Your task to perform on an android device: uninstall "Lyft - Rideshare, Bikes, Scooters & Transit" Image 0: 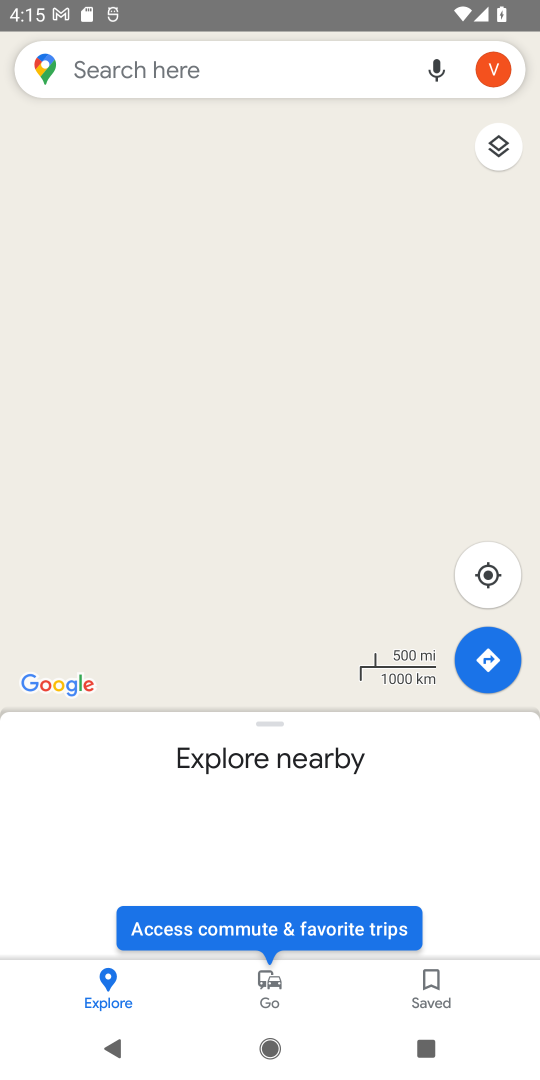
Step 0: press home button
Your task to perform on an android device: uninstall "Lyft - Rideshare, Bikes, Scooters & Transit" Image 1: 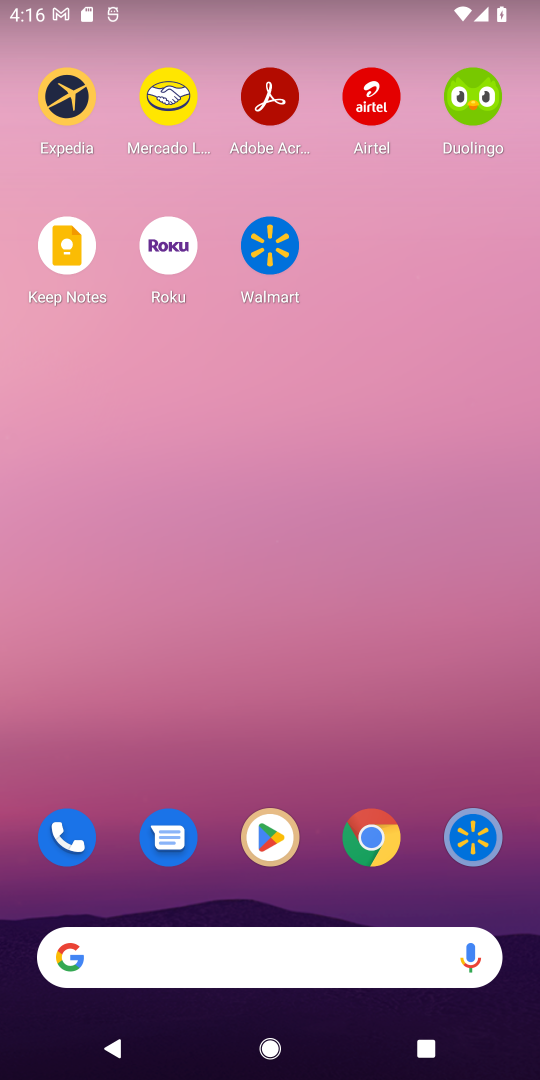
Step 1: press home button
Your task to perform on an android device: uninstall "Lyft - Rideshare, Bikes, Scooters & Transit" Image 2: 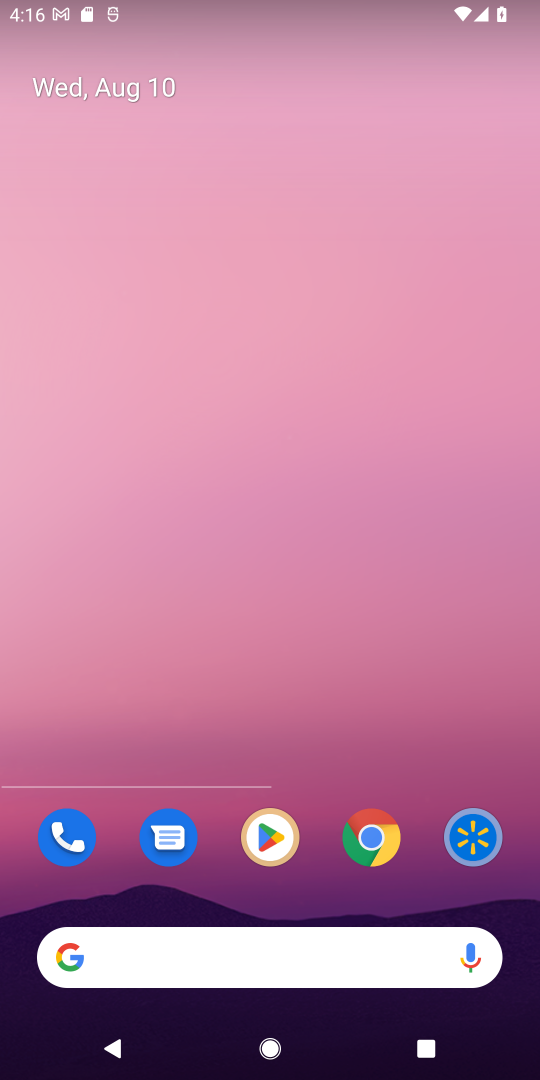
Step 2: click (270, 833)
Your task to perform on an android device: uninstall "Lyft - Rideshare, Bikes, Scooters & Transit" Image 3: 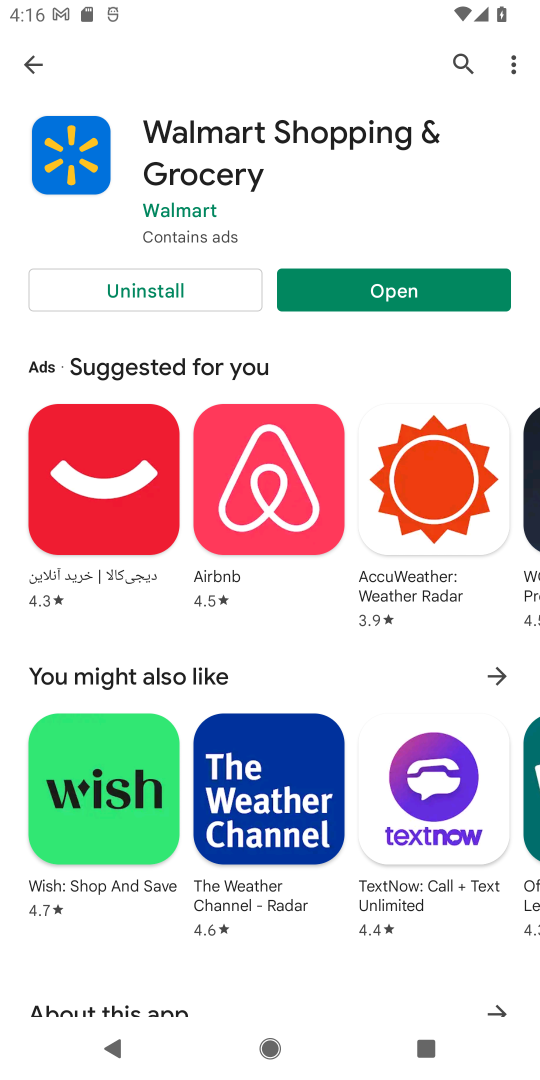
Step 3: click (454, 53)
Your task to perform on an android device: uninstall "Lyft - Rideshare, Bikes, Scooters & Transit" Image 4: 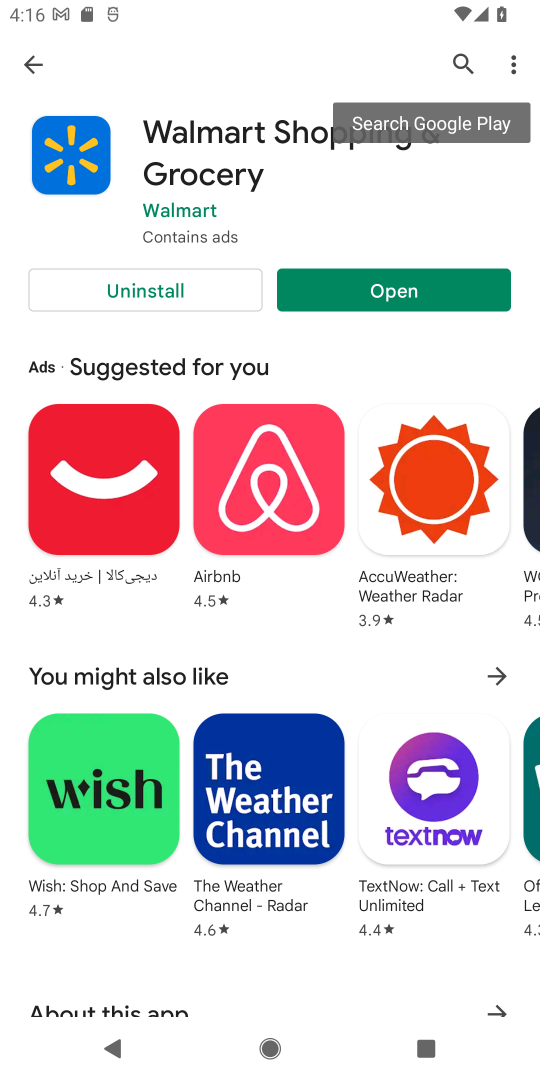
Step 4: click (460, 59)
Your task to perform on an android device: uninstall "Lyft - Rideshare, Bikes, Scooters & Transit" Image 5: 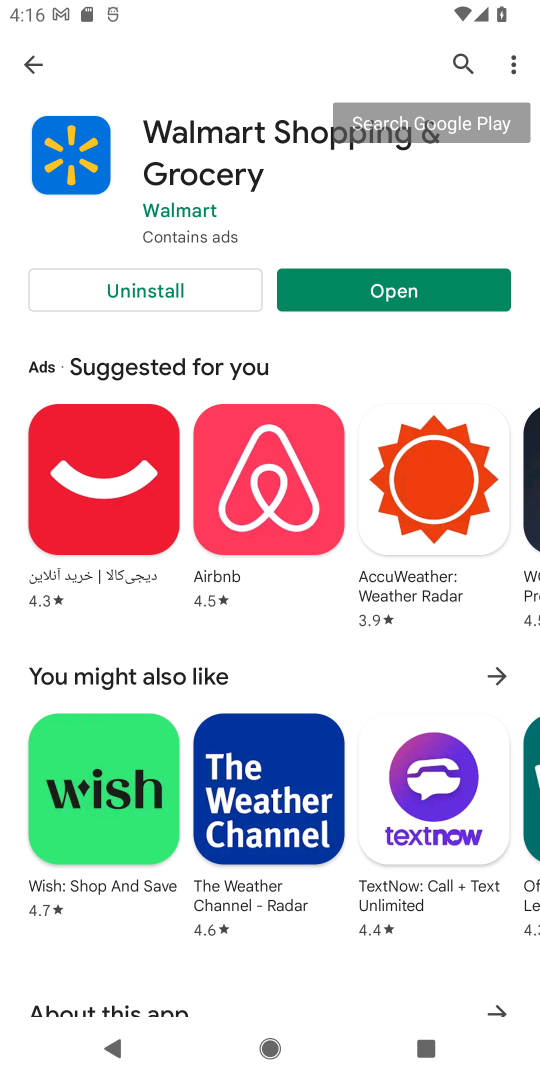
Step 5: click (460, 56)
Your task to perform on an android device: uninstall "Lyft - Rideshare, Bikes, Scooters & Transit" Image 6: 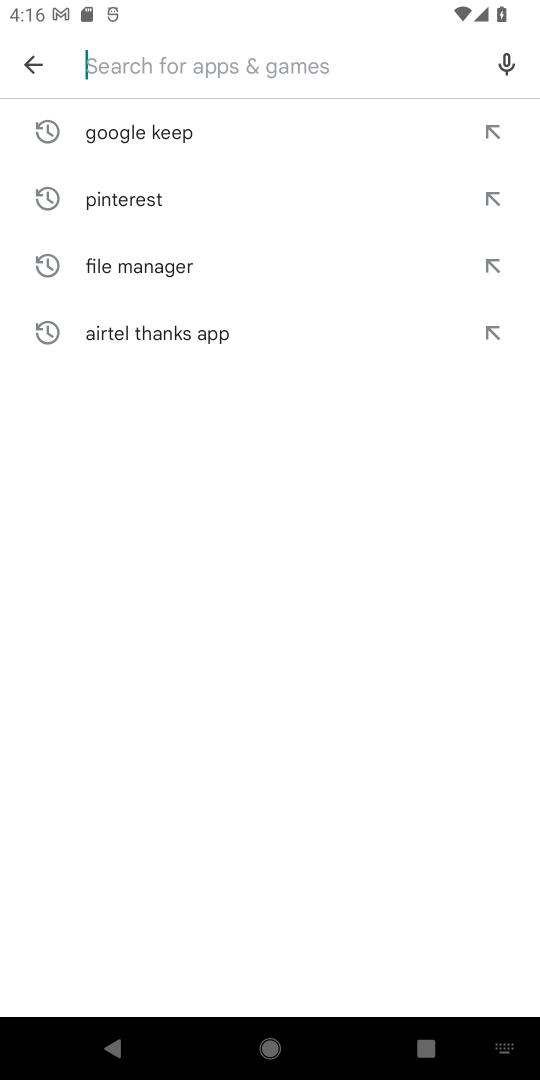
Step 6: type "Lyft - Rideshare, Bikes, Scooters & Transit"
Your task to perform on an android device: uninstall "Lyft - Rideshare, Bikes, Scooters & Transit" Image 7: 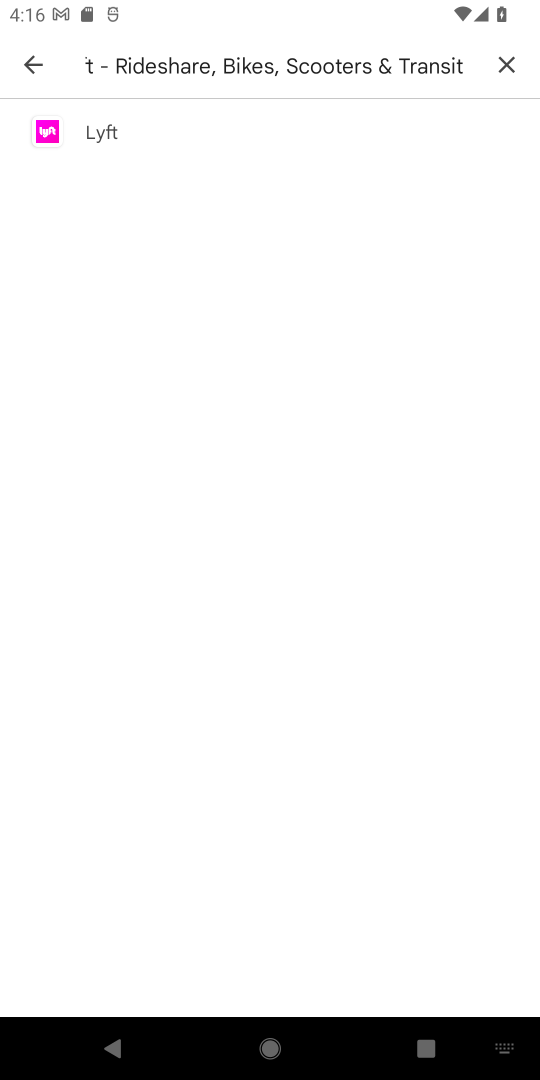
Step 7: click (96, 129)
Your task to perform on an android device: uninstall "Lyft - Rideshare, Bikes, Scooters & Transit" Image 8: 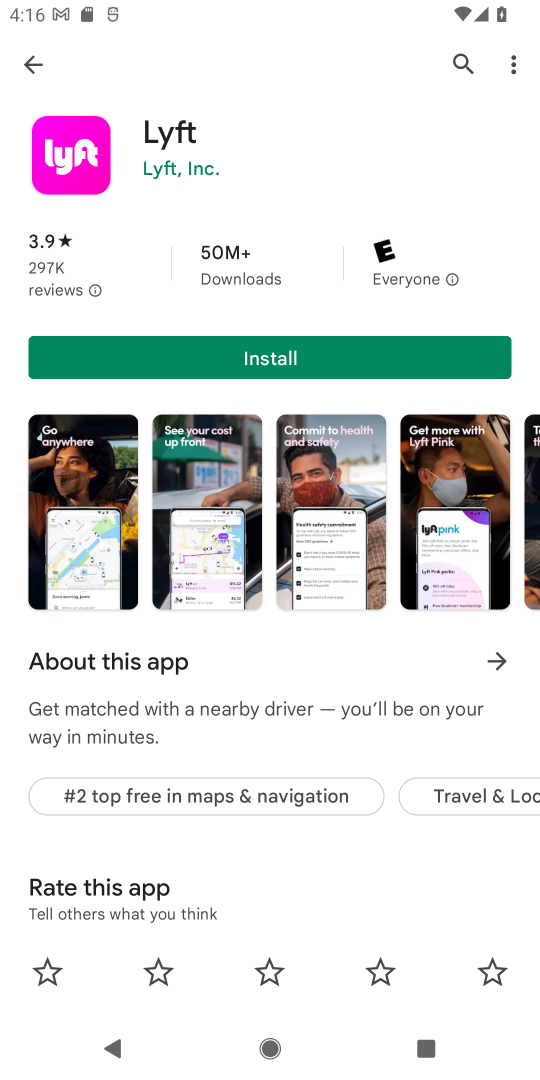
Step 8: task complete